Your task to perform on an android device: turn off notifications settings in the gmail app Image 0: 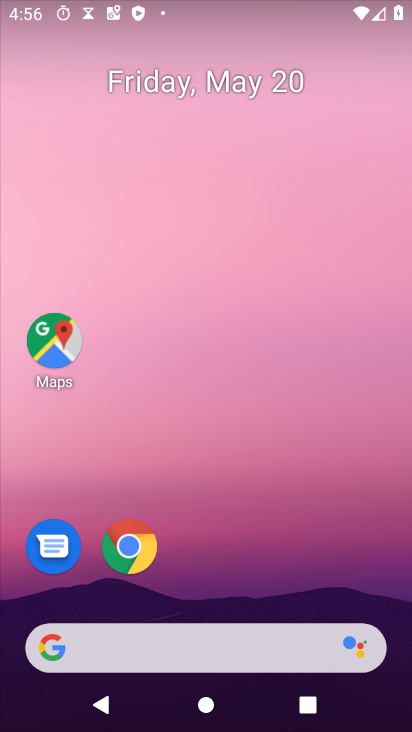
Step 0: drag from (274, 562) to (178, 65)
Your task to perform on an android device: turn off notifications settings in the gmail app Image 1: 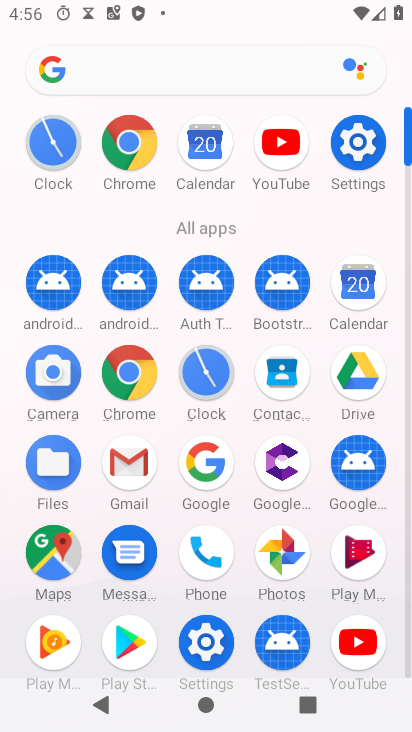
Step 1: click (129, 460)
Your task to perform on an android device: turn off notifications settings in the gmail app Image 2: 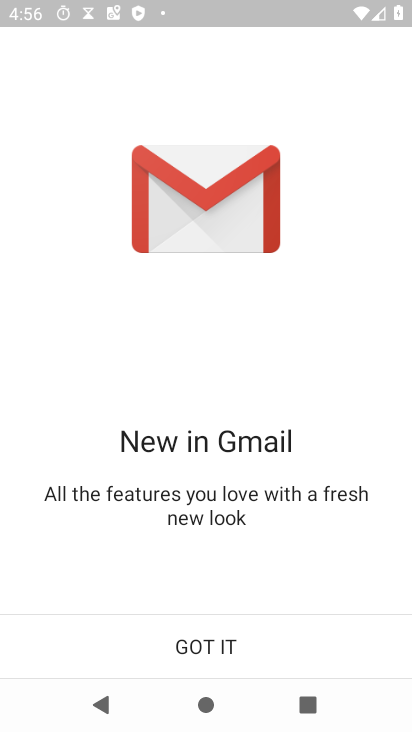
Step 2: click (208, 647)
Your task to perform on an android device: turn off notifications settings in the gmail app Image 3: 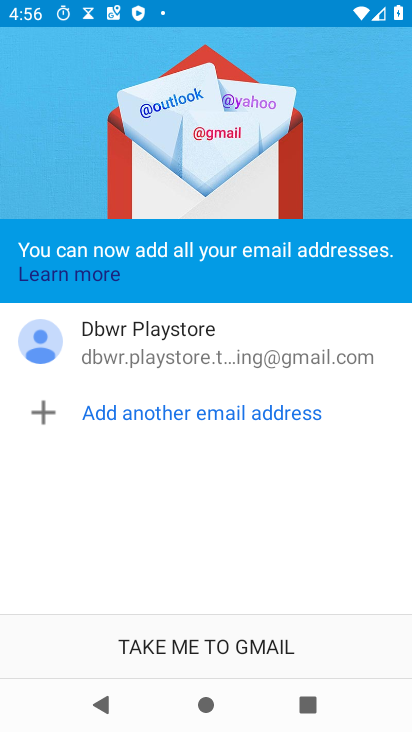
Step 3: click (207, 647)
Your task to perform on an android device: turn off notifications settings in the gmail app Image 4: 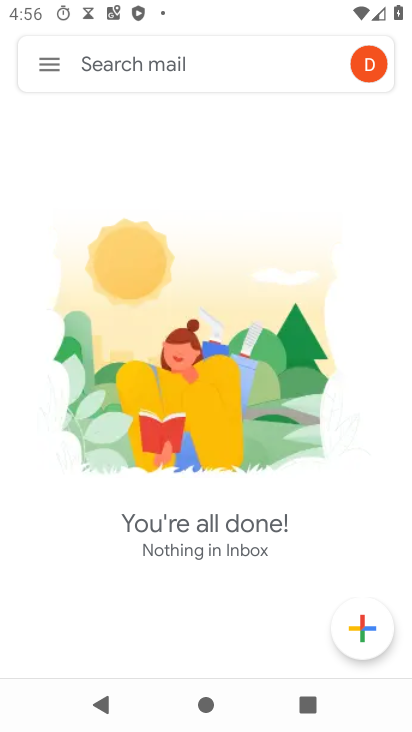
Step 4: click (53, 66)
Your task to perform on an android device: turn off notifications settings in the gmail app Image 5: 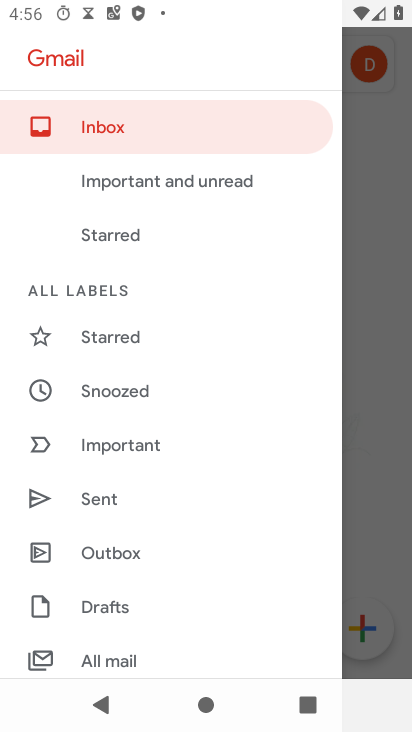
Step 5: drag from (100, 380) to (113, 315)
Your task to perform on an android device: turn off notifications settings in the gmail app Image 6: 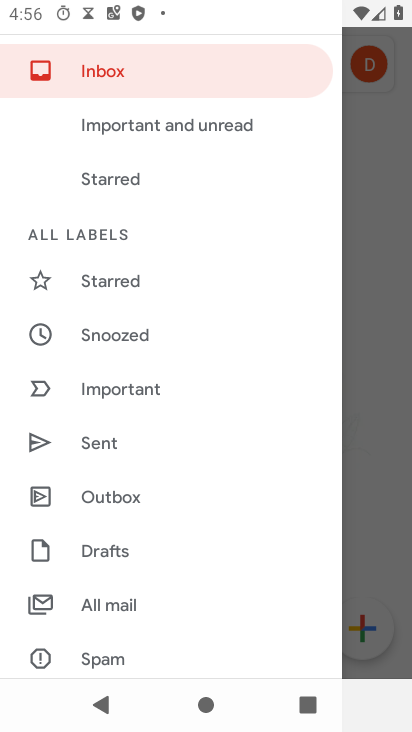
Step 6: drag from (122, 444) to (128, 379)
Your task to perform on an android device: turn off notifications settings in the gmail app Image 7: 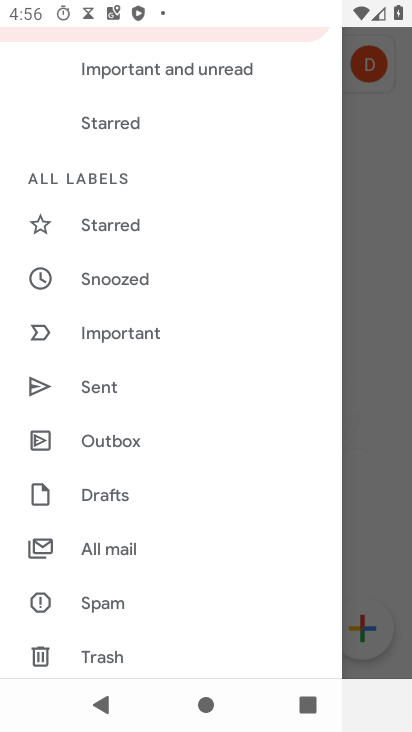
Step 7: drag from (100, 465) to (116, 398)
Your task to perform on an android device: turn off notifications settings in the gmail app Image 8: 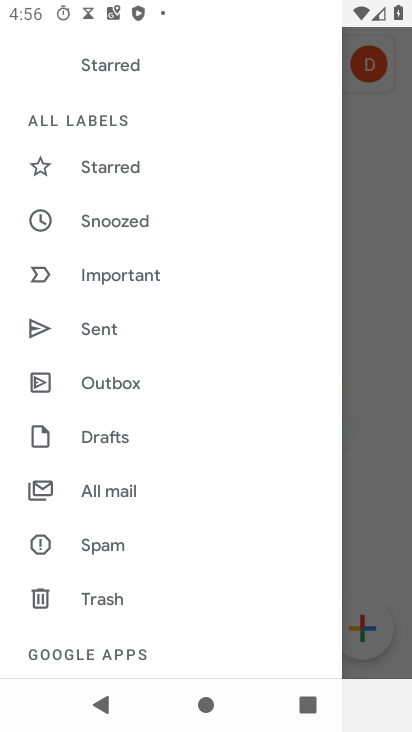
Step 8: drag from (104, 503) to (130, 405)
Your task to perform on an android device: turn off notifications settings in the gmail app Image 9: 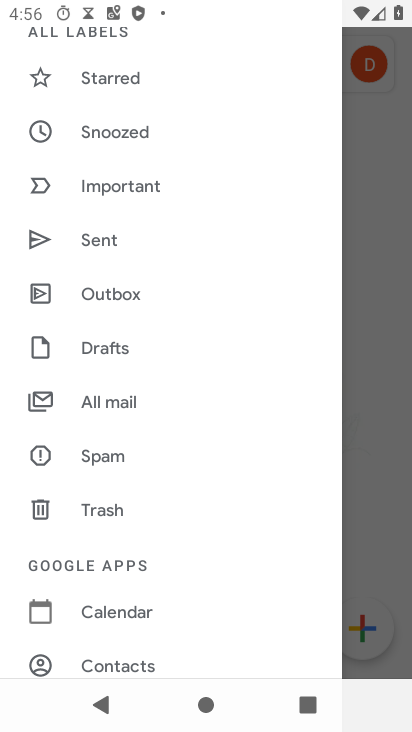
Step 9: drag from (99, 548) to (142, 450)
Your task to perform on an android device: turn off notifications settings in the gmail app Image 10: 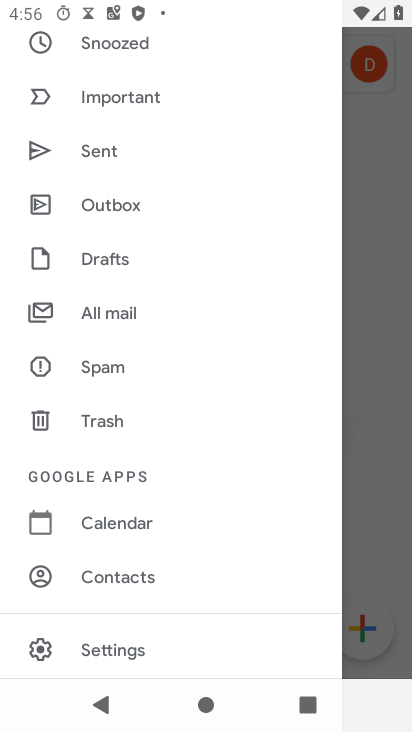
Step 10: drag from (100, 545) to (156, 445)
Your task to perform on an android device: turn off notifications settings in the gmail app Image 11: 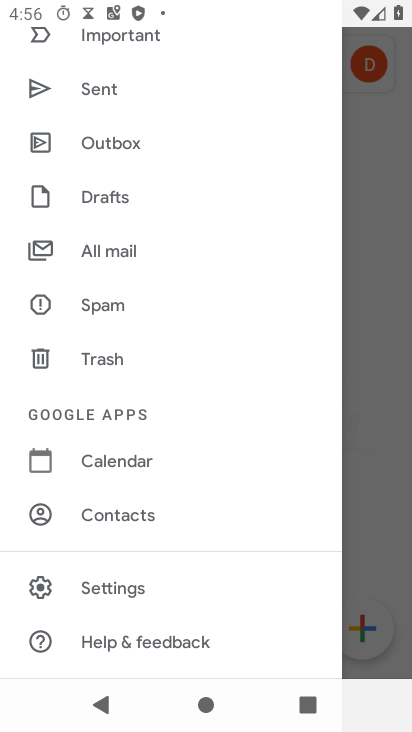
Step 11: click (109, 587)
Your task to perform on an android device: turn off notifications settings in the gmail app Image 12: 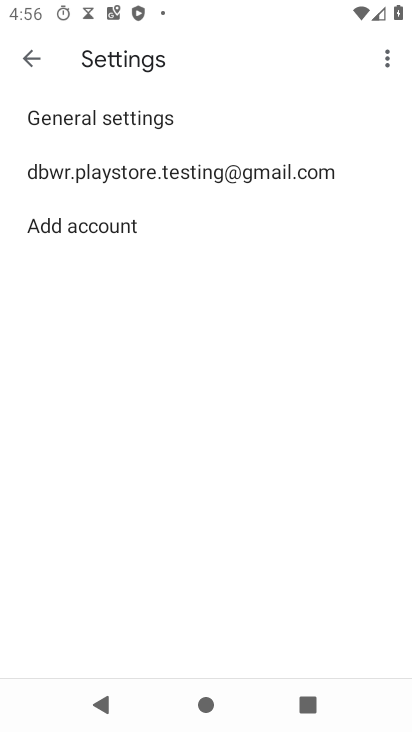
Step 12: click (158, 167)
Your task to perform on an android device: turn off notifications settings in the gmail app Image 13: 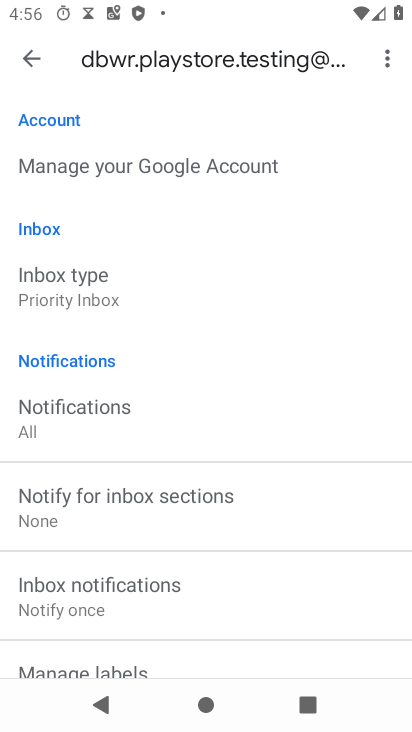
Step 13: drag from (117, 415) to (166, 340)
Your task to perform on an android device: turn off notifications settings in the gmail app Image 14: 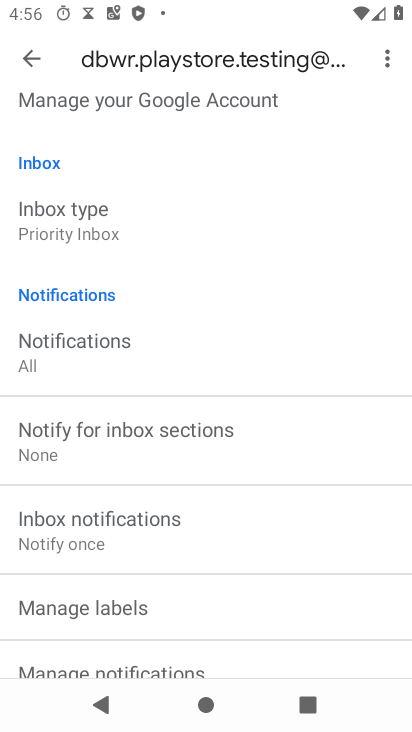
Step 14: drag from (125, 545) to (177, 412)
Your task to perform on an android device: turn off notifications settings in the gmail app Image 15: 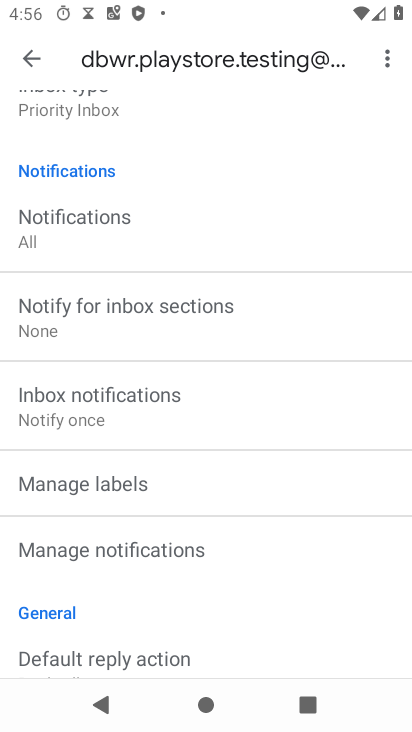
Step 15: click (123, 545)
Your task to perform on an android device: turn off notifications settings in the gmail app Image 16: 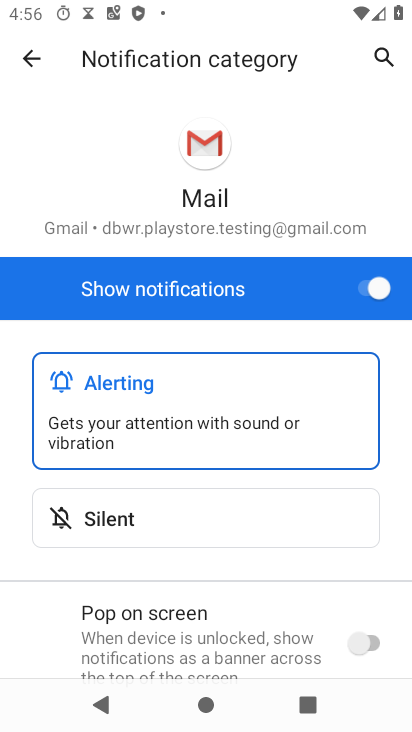
Step 16: click (382, 281)
Your task to perform on an android device: turn off notifications settings in the gmail app Image 17: 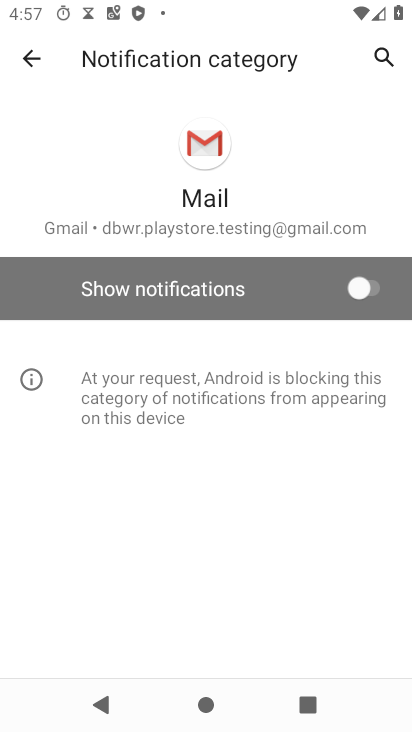
Step 17: task complete